Your task to perform on an android device: Open the Play Movies app and select the watchlist tab. Image 0: 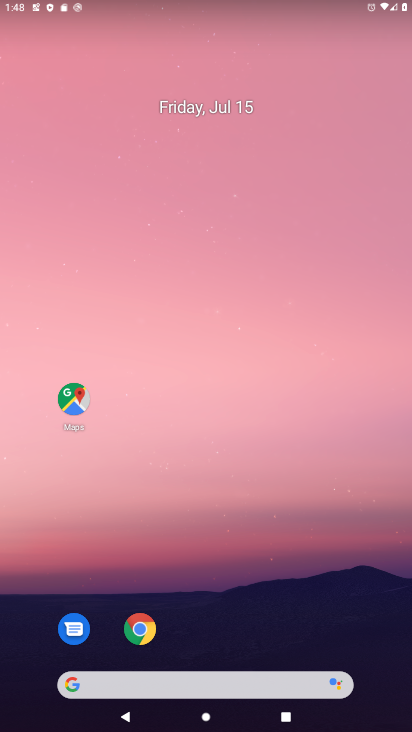
Step 0: drag from (285, 502) to (276, 93)
Your task to perform on an android device: Open the Play Movies app and select the watchlist tab. Image 1: 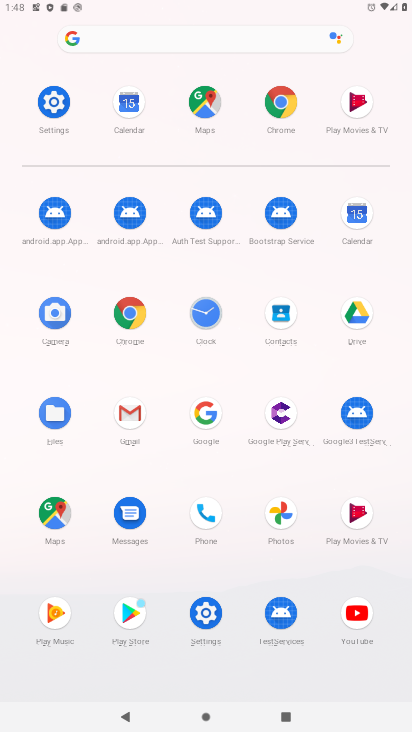
Step 1: click (366, 507)
Your task to perform on an android device: Open the Play Movies app and select the watchlist tab. Image 2: 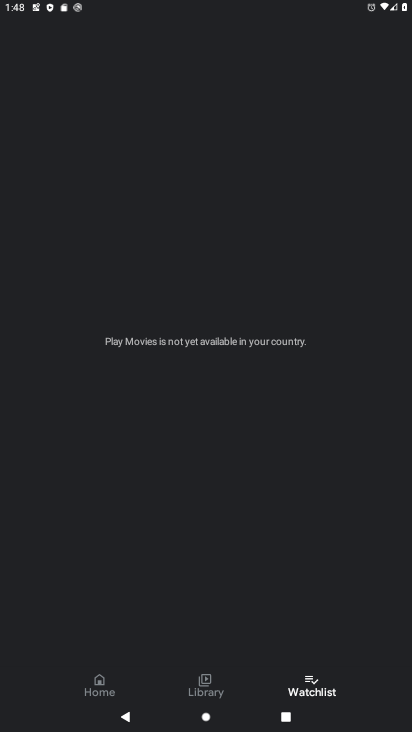
Step 2: task complete